Your task to perform on an android device: Open location settings Image 0: 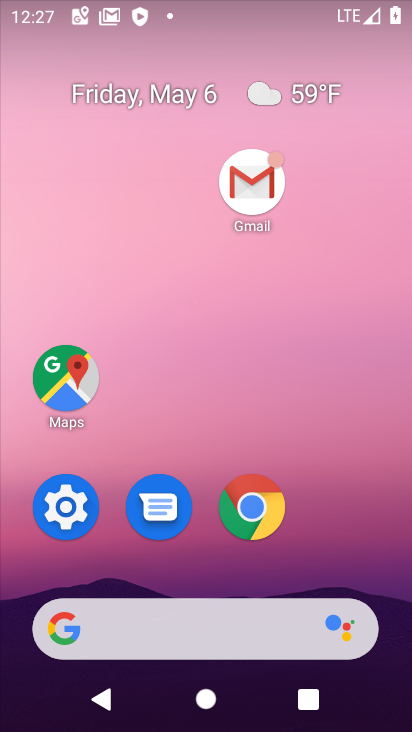
Step 0: click (71, 500)
Your task to perform on an android device: Open location settings Image 1: 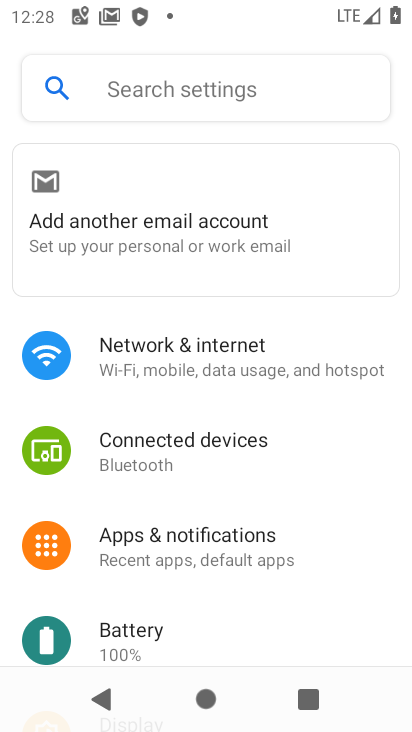
Step 1: drag from (222, 589) to (147, 271)
Your task to perform on an android device: Open location settings Image 2: 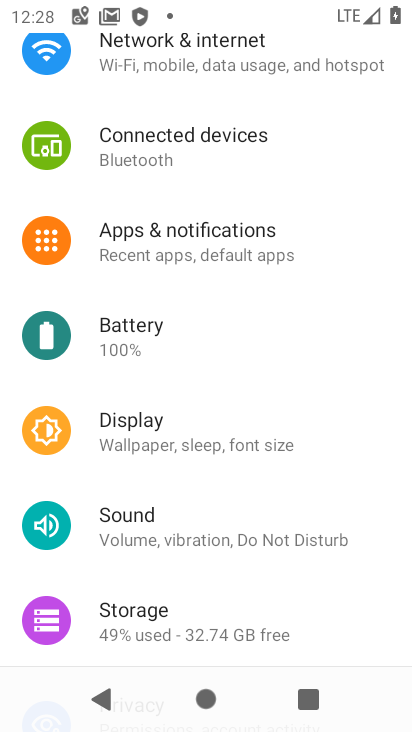
Step 2: drag from (234, 465) to (218, 228)
Your task to perform on an android device: Open location settings Image 3: 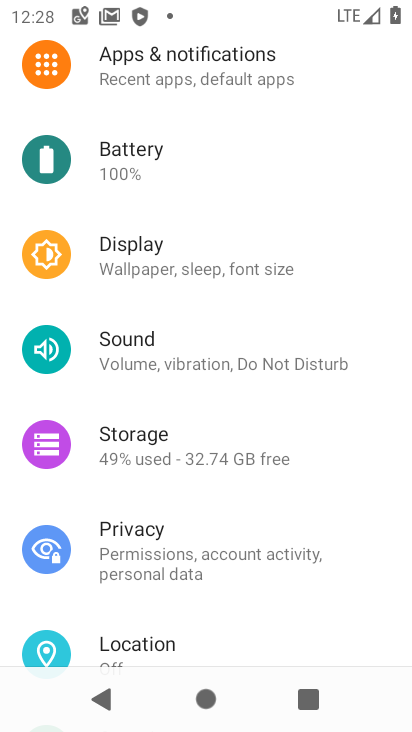
Step 3: drag from (196, 529) to (172, 204)
Your task to perform on an android device: Open location settings Image 4: 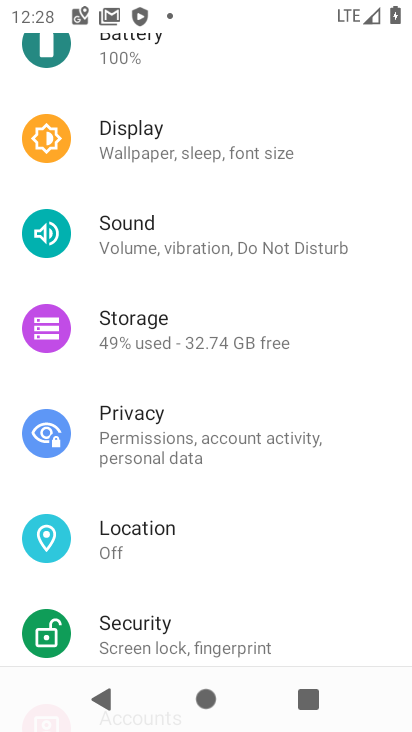
Step 4: click (141, 533)
Your task to perform on an android device: Open location settings Image 5: 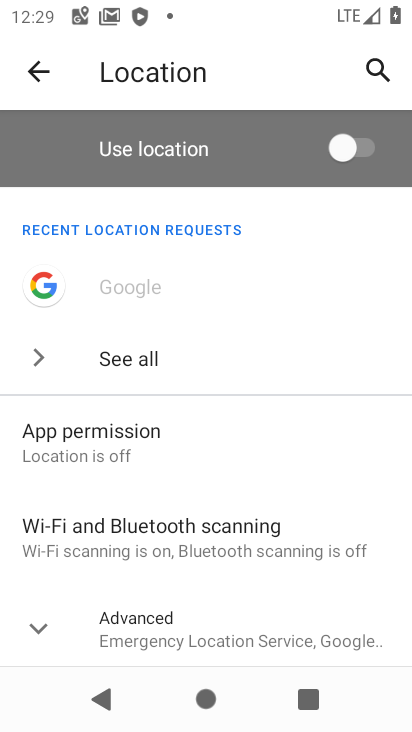
Step 5: task complete